Your task to perform on an android device: What's the weather today? Image 0: 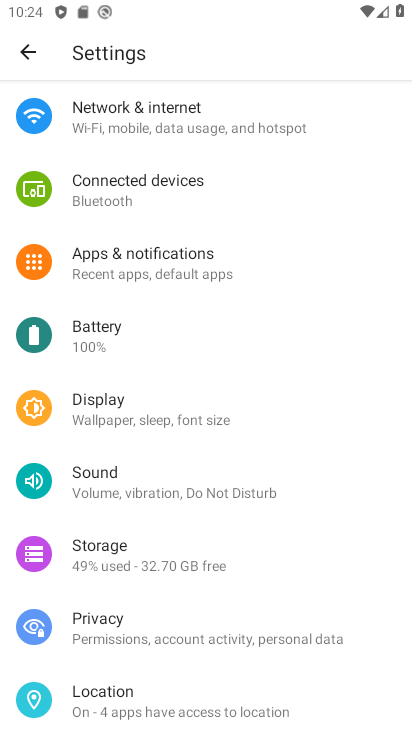
Step 0: press home button
Your task to perform on an android device: What's the weather today? Image 1: 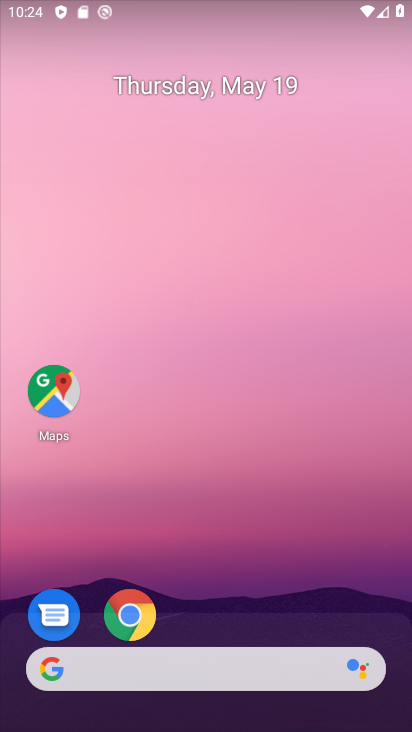
Step 1: click (105, 691)
Your task to perform on an android device: What's the weather today? Image 2: 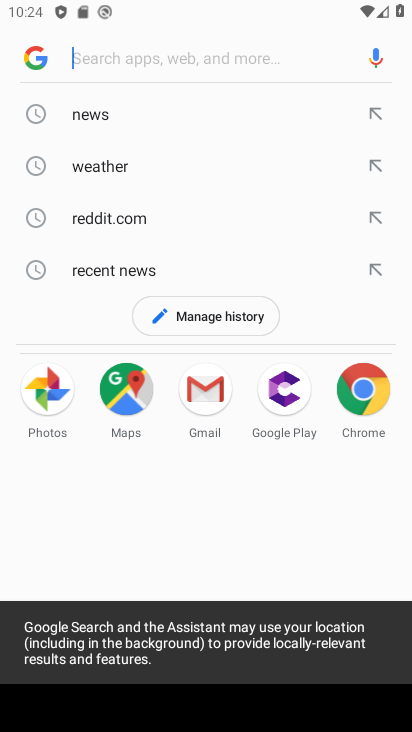
Step 2: click (116, 173)
Your task to perform on an android device: What's the weather today? Image 3: 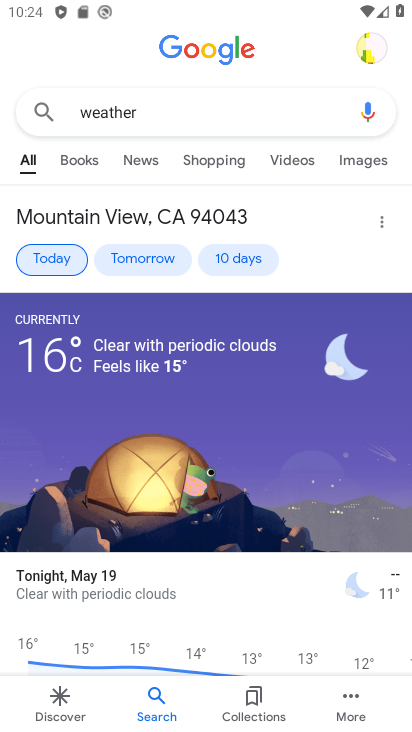
Step 3: task complete